Your task to perform on an android device: Show me recent news Image 0: 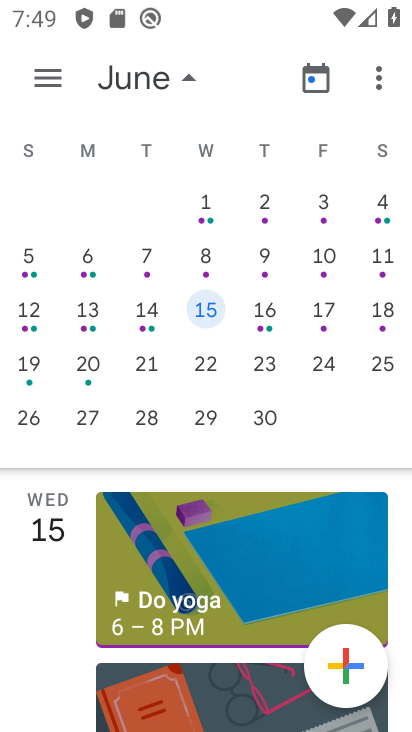
Step 0: press back button
Your task to perform on an android device: Show me recent news Image 1: 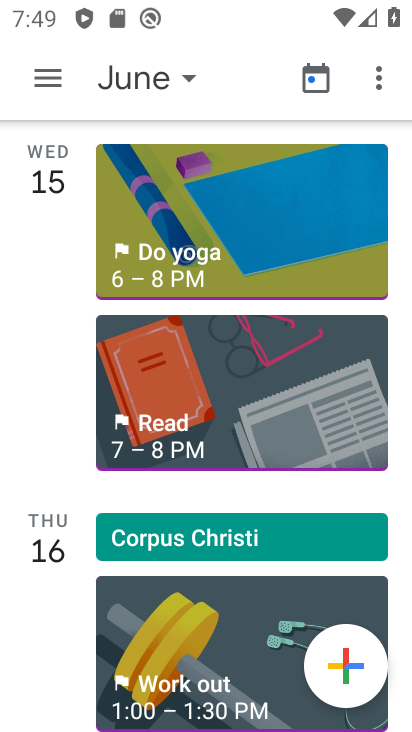
Step 1: task complete